Your task to perform on an android device: Find coffee shops on Maps Image 0: 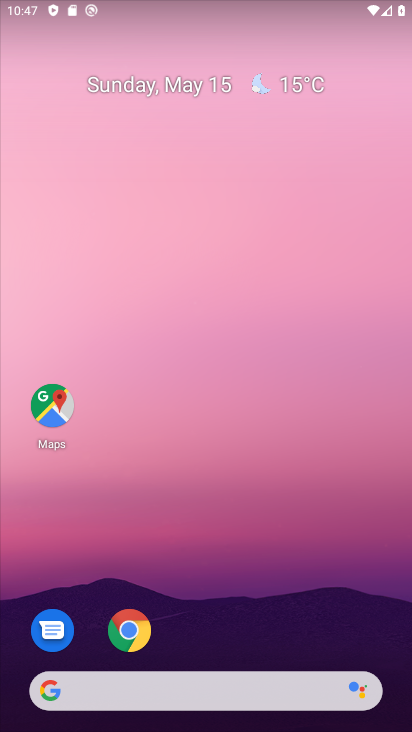
Step 0: drag from (217, 725) to (210, 179)
Your task to perform on an android device: Find coffee shops on Maps Image 1: 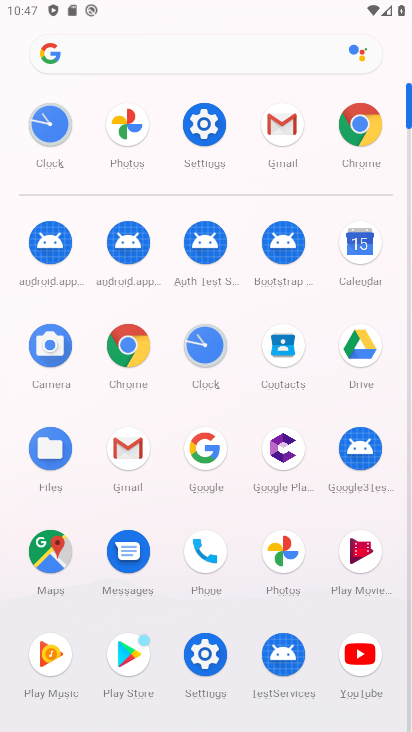
Step 1: click (46, 552)
Your task to perform on an android device: Find coffee shops on Maps Image 2: 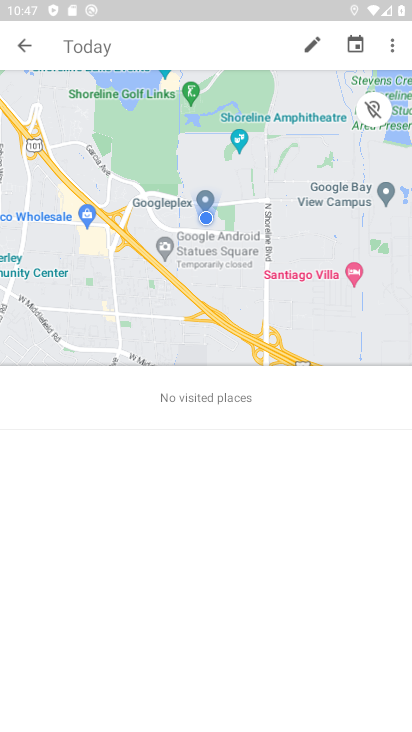
Step 2: click (25, 40)
Your task to perform on an android device: Find coffee shops on Maps Image 3: 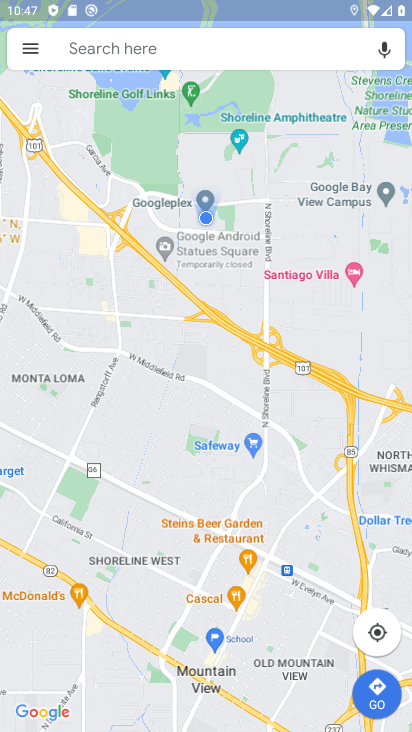
Step 3: click (186, 49)
Your task to perform on an android device: Find coffee shops on Maps Image 4: 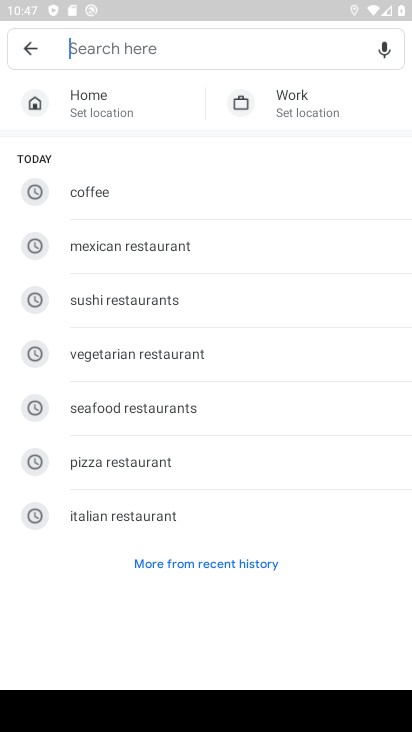
Step 4: type "coffee shops"
Your task to perform on an android device: Find coffee shops on Maps Image 5: 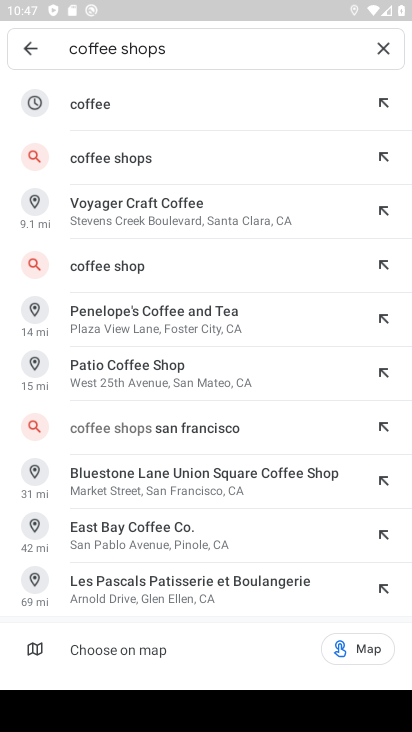
Step 5: click (99, 153)
Your task to perform on an android device: Find coffee shops on Maps Image 6: 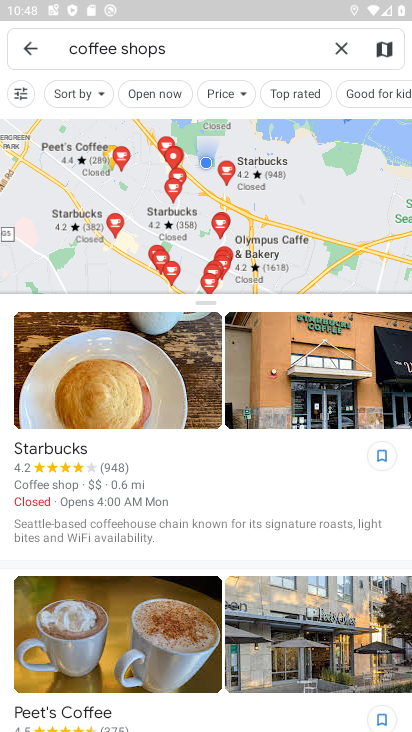
Step 6: task complete